Your task to perform on an android device: Open the phone app and click the voicemail tab. Image 0: 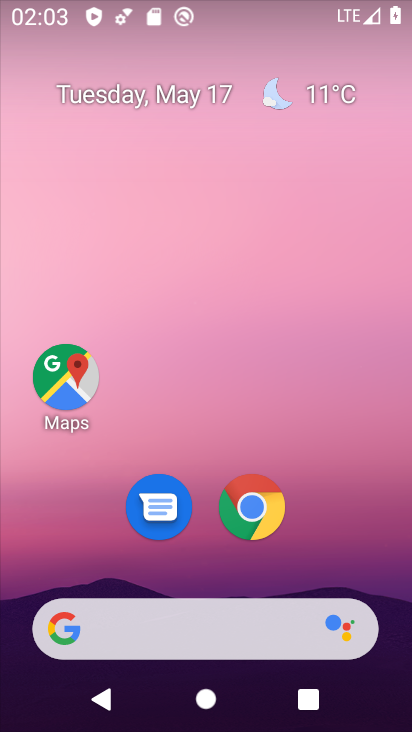
Step 0: drag from (207, 579) to (239, 164)
Your task to perform on an android device: Open the phone app and click the voicemail tab. Image 1: 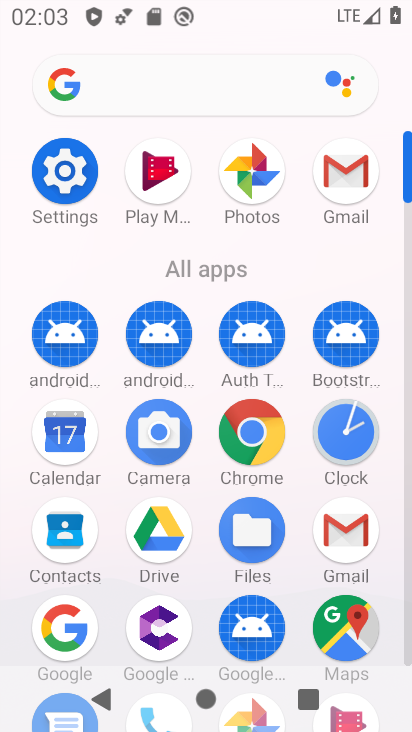
Step 1: drag from (207, 594) to (223, 288)
Your task to perform on an android device: Open the phone app and click the voicemail tab. Image 2: 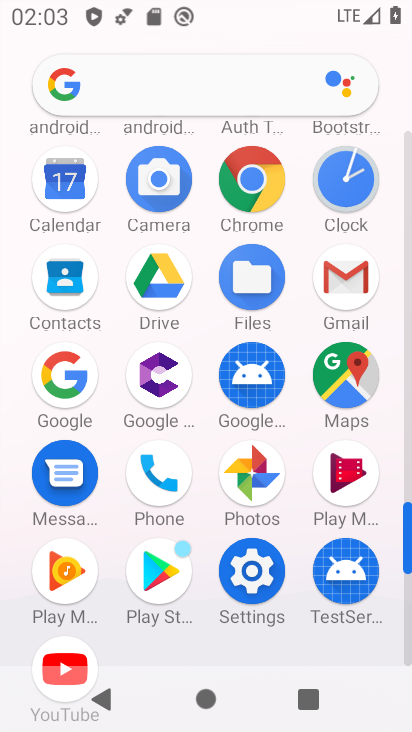
Step 2: click (148, 463)
Your task to perform on an android device: Open the phone app and click the voicemail tab. Image 3: 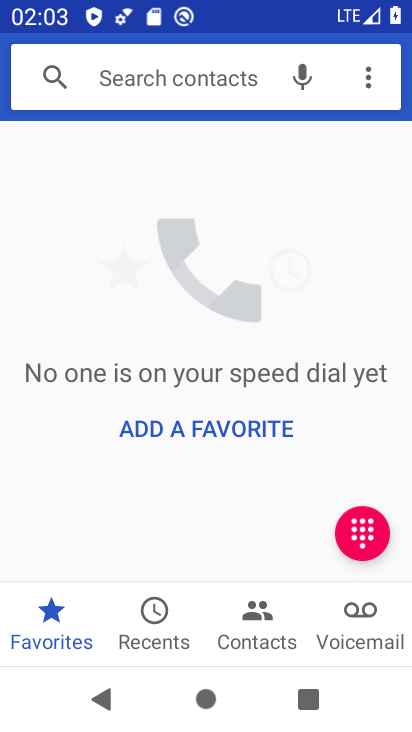
Step 3: click (352, 633)
Your task to perform on an android device: Open the phone app and click the voicemail tab. Image 4: 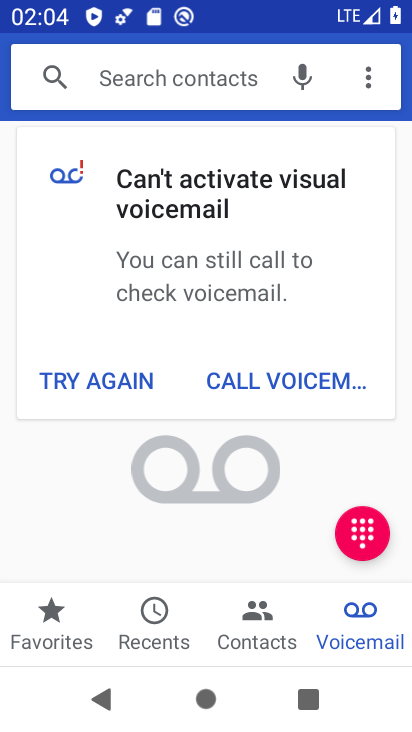
Step 4: task complete